Your task to perform on an android device: Open calendar and show me the second week of next month Image 0: 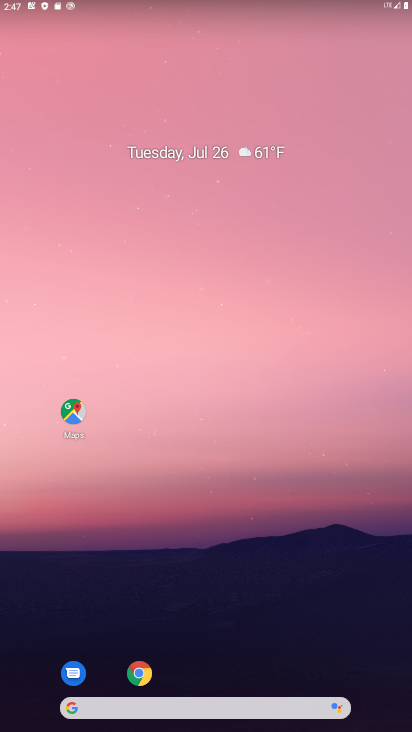
Step 0: drag from (248, 607) to (308, 56)
Your task to perform on an android device: Open calendar and show me the second week of next month Image 1: 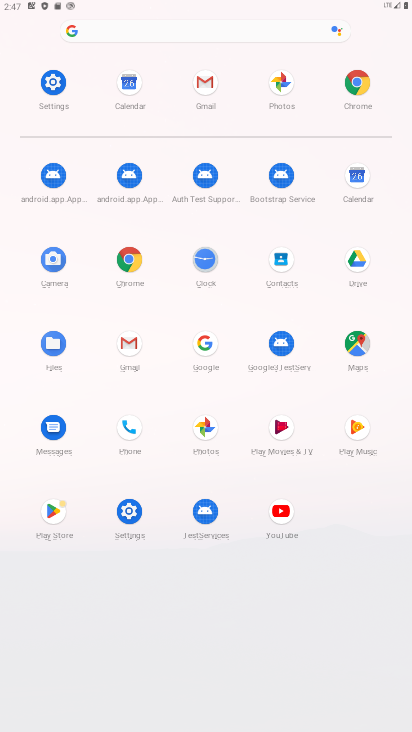
Step 1: click (347, 169)
Your task to perform on an android device: Open calendar and show me the second week of next month Image 2: 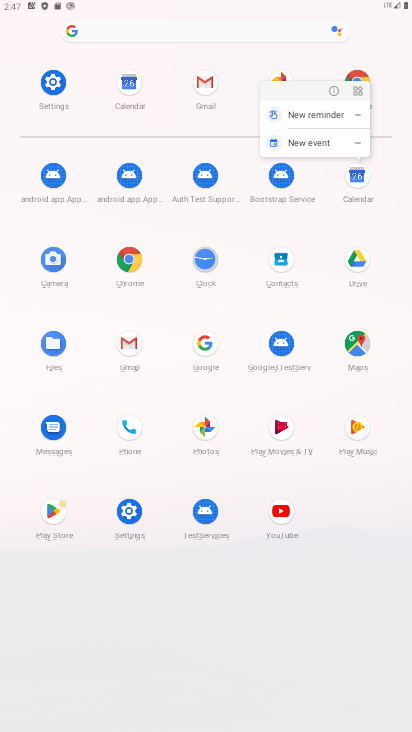
Step 2: click (333, 90)
Your task to perform on an android device: Open calendar and show me the second week of next month Image 3: 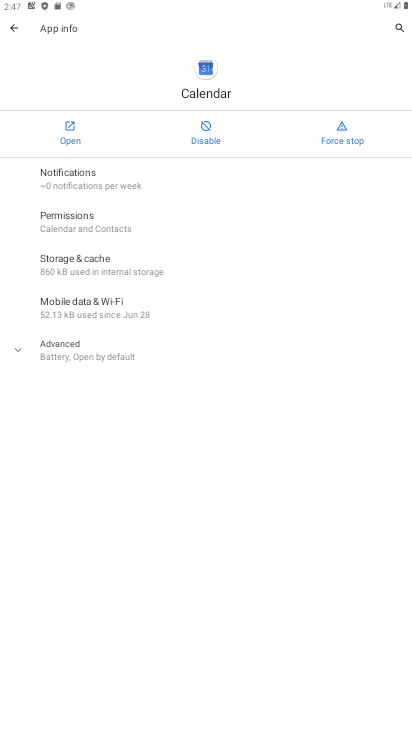
Step 3: click (67, 133)
Your task to perform on an android device: Open calendar and show me the second week of next month Image 4: 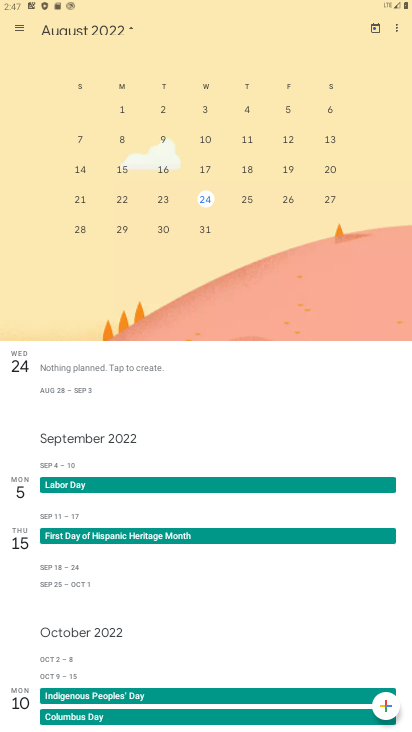
Step 4: click (208, 171)
Your task to perform on an android device: Open calendar and show me the second week of next month Image 5: 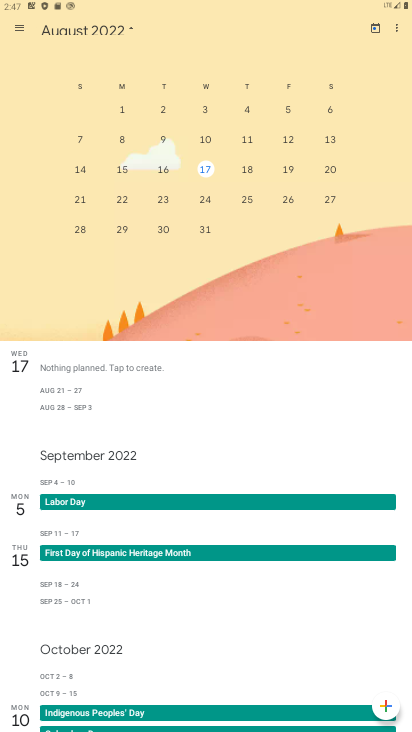
Step 5: click (245, 145)
Your task to perform on an android device: Open calendar and show me the second week of next month Image 6: 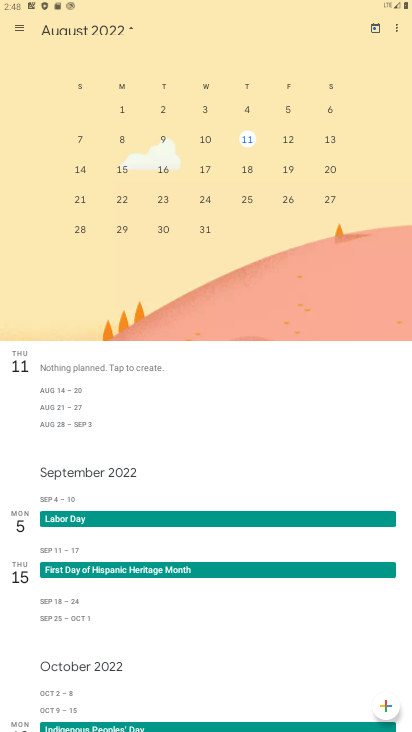
Step 6: task complete